Your task to perform on an android device: change the clock display to digital Image 0: 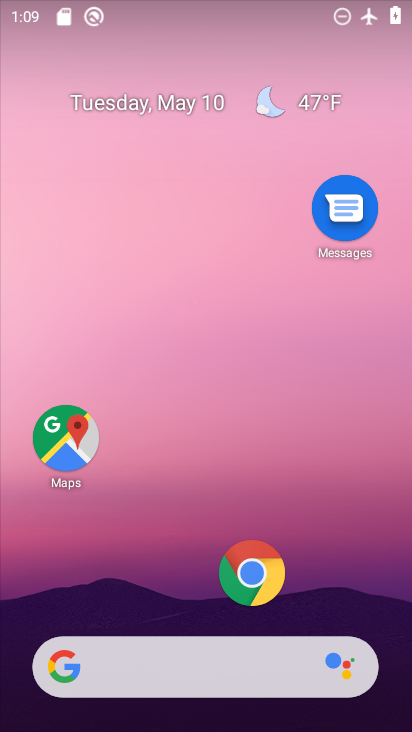
Step 0: drag from (202, 575) to (243, 182)
Your task to perform on an android device: change the clock display to digital Image 1: 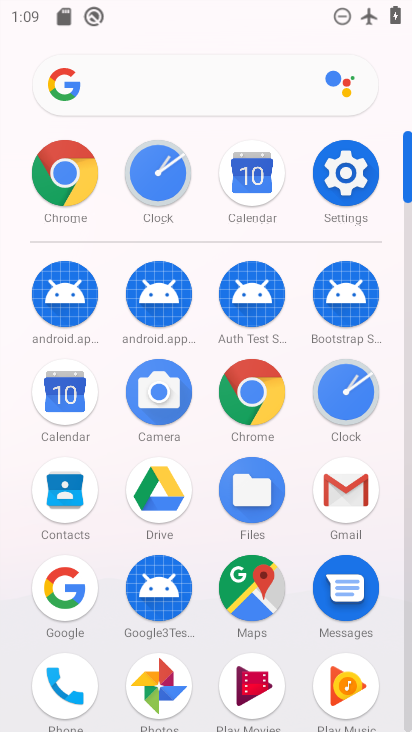
Step 1: click (334, 395)
Your task to perform on an android device: change the clock display to digital Image 2: 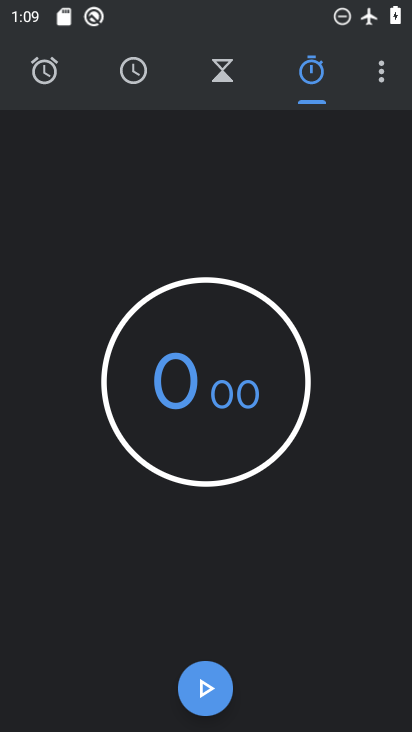
Step 2: click (380, 81)
Your task to perform on an android device: change the clock display to digital Image 3: 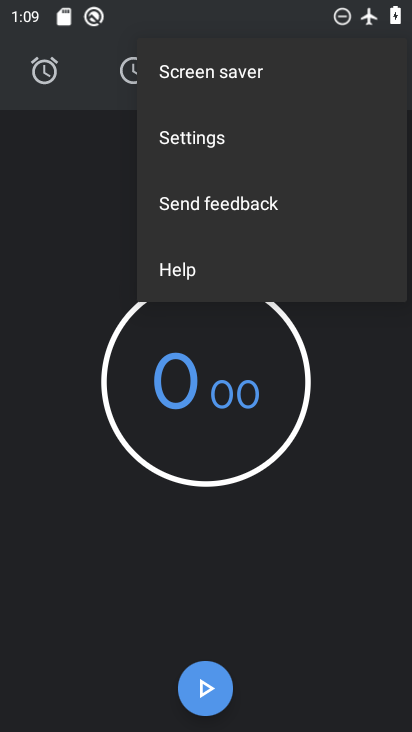
Step 3: click (256, 144)
Your task to perform on an android device: change the clock display to digital Image 4: 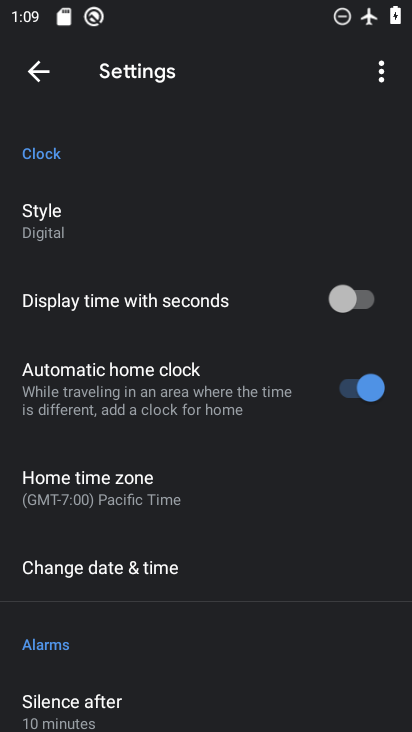
Step 4: click (151, 219)
Your task to perform on an android device: change the clock display to digital Image 5: 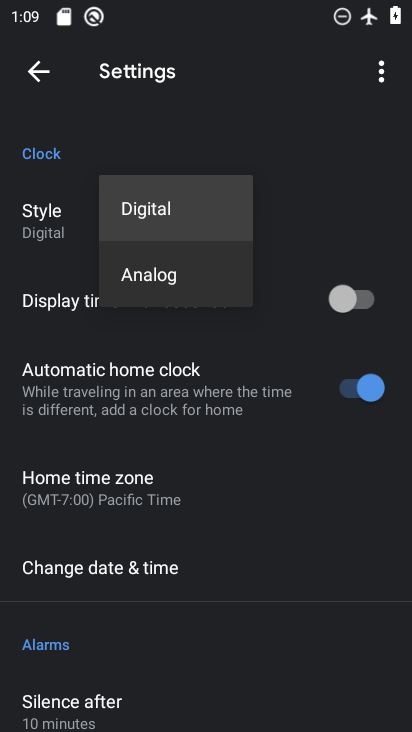
Step 5: click (137, 229)
Your task to perform on an android device: change the clock display to digital Image 6: 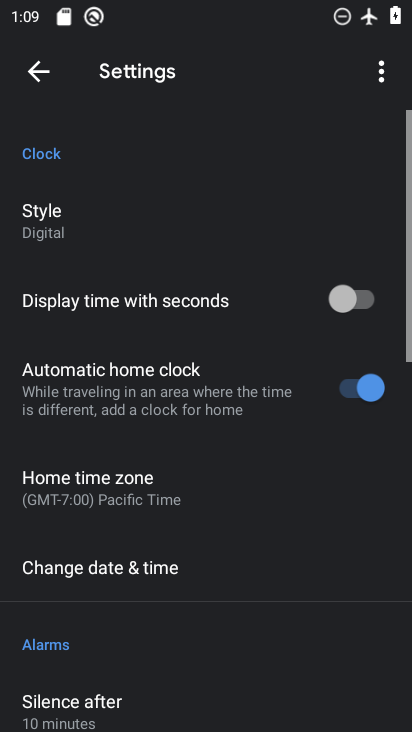
Step 6: task complete